Your task to perform on an android device: Open Wikipedia Image 0: 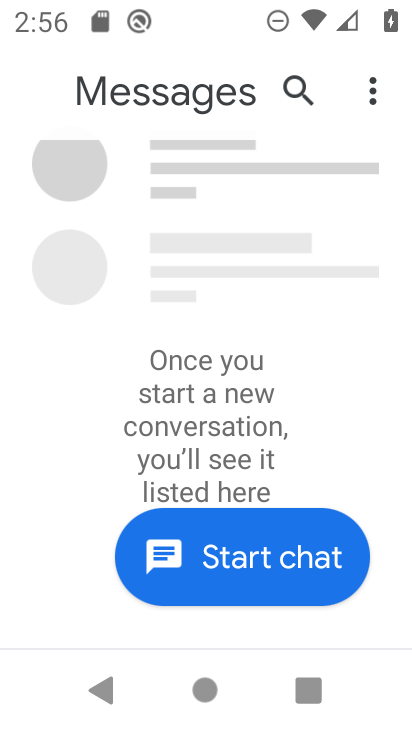
Step 0: press home button
Your task to perform on an android device: Open Wikipedia Image 1: 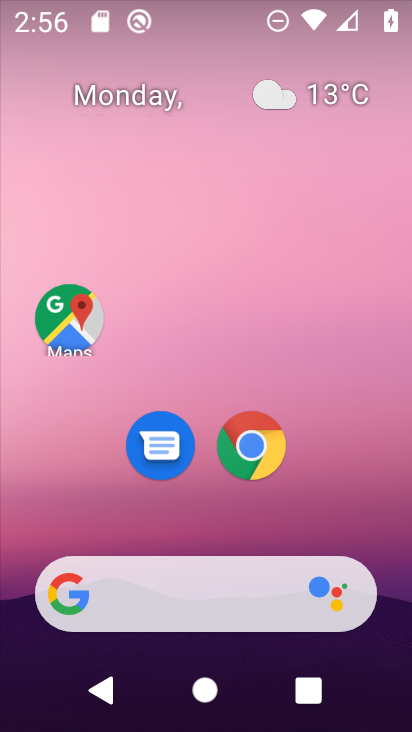
Step 1: drag from (387, 627) to (298, 0)
Your task to perform on an android device: Open Wikipedia Image 2: 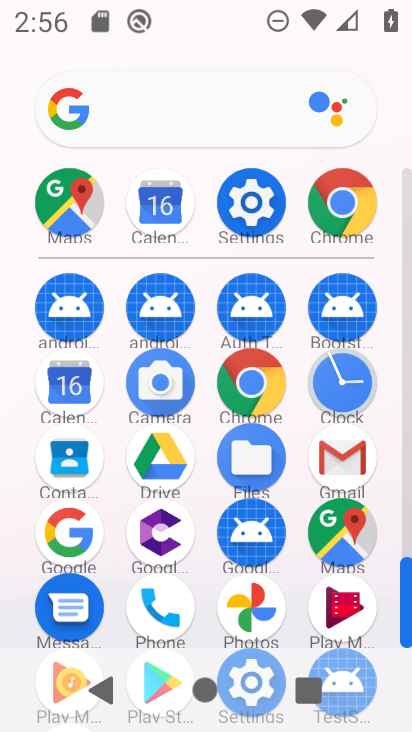
Step 2: click (256, 395)
Your task to perform on an android device: Open Wikipedia Image 3: 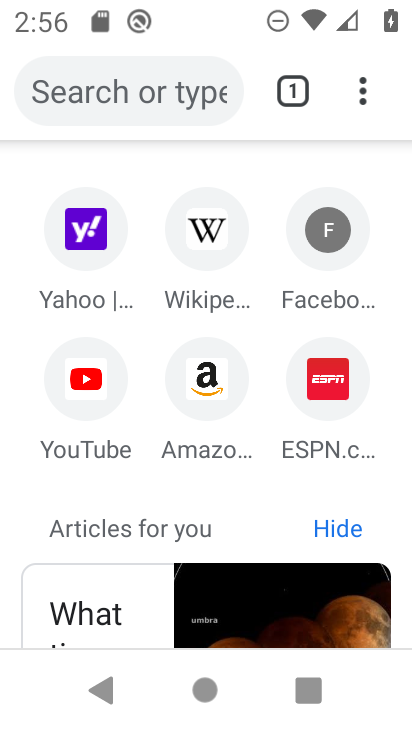
Step 3: click (202, 240)
Your task to perform on an android device: Open Wikipedia Image 4: 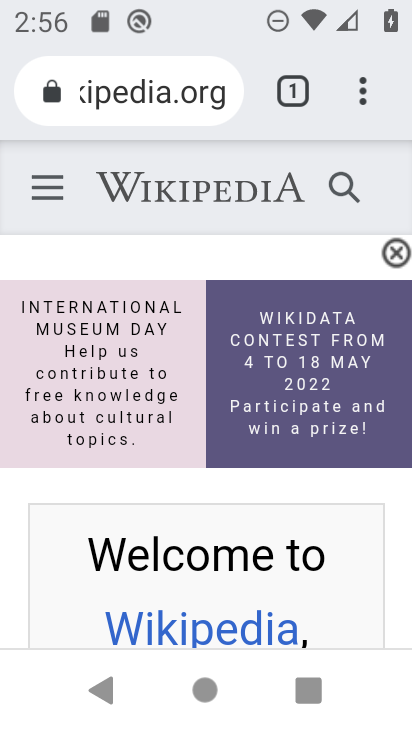
Step 4: task complete